Your task to perform on an android device: turn on data saver in the chrome app Image 0: 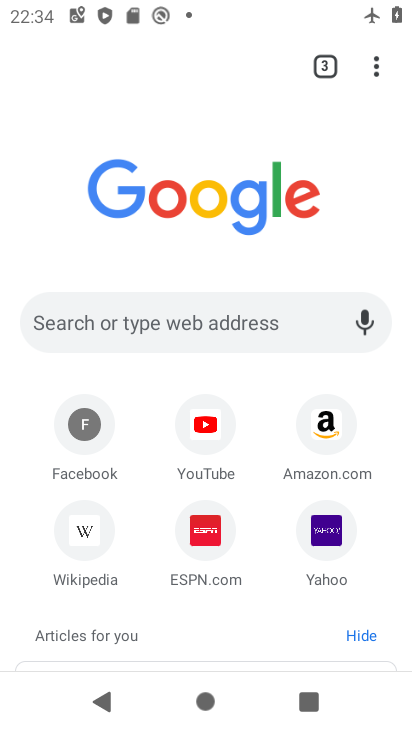
Step 0: press home button
Your task to perform on an android device: turn on data saver in the chrome app Image 1: 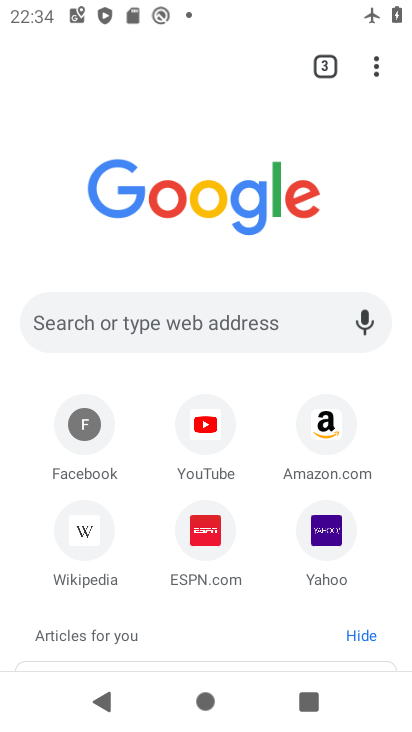
Step 1: press home button
Your task to perform on an android device: turn on data saver in the chrome app Image 2: 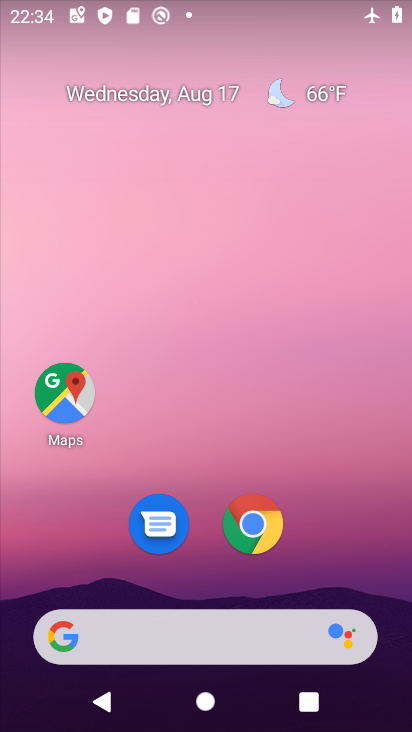
Step 2: click (251, 524)
Your task to perform on an android device: turn on data saver in the chrome app Image 3: 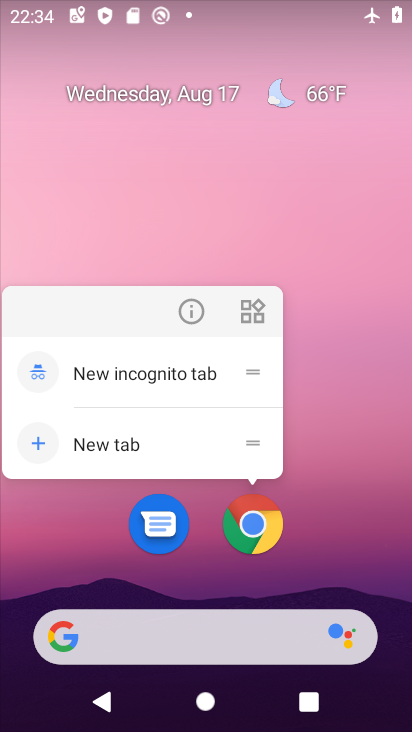
Step 3: click (256, 519)
Your task to perform on an android device: turn on data saver in the chrome app Image 4: 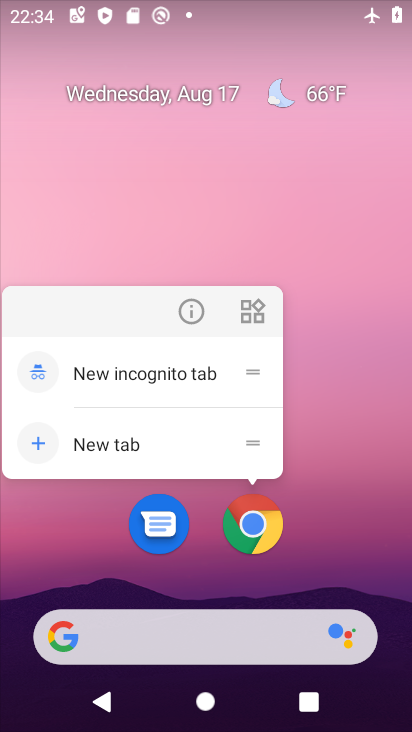
Step 4: click (257, 519)
Your task to perform on an android device: turn on data saver in the chrome app Image 5: 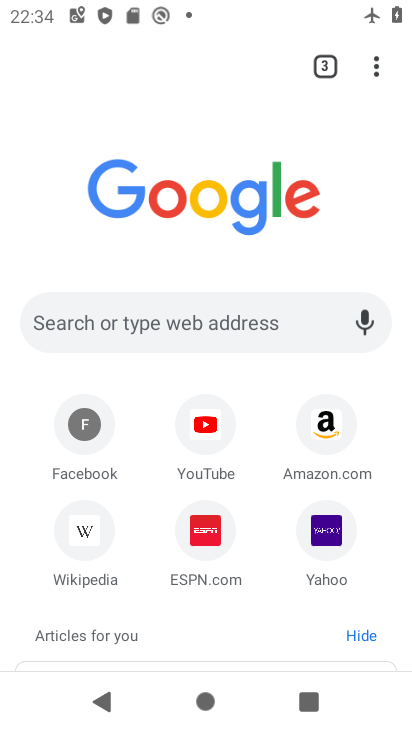
Step 5: click (374, 78)
Your task to perform on an android device: turn on data saver in the chrome app Image 6: 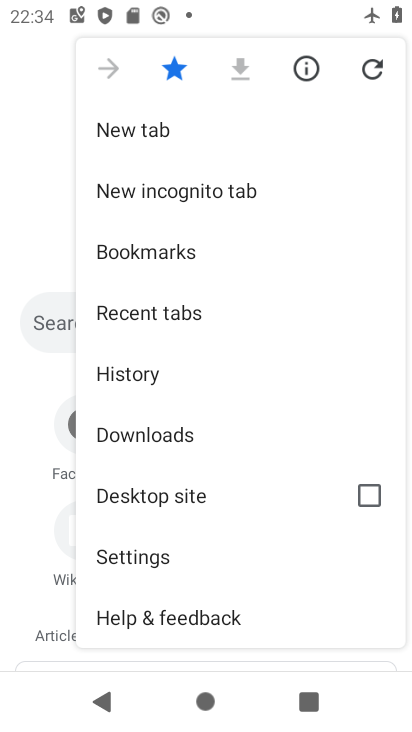
Step 6: click (188, 546)
Your task to perform on an android device: turn on data saver in the chrome app Image 7: 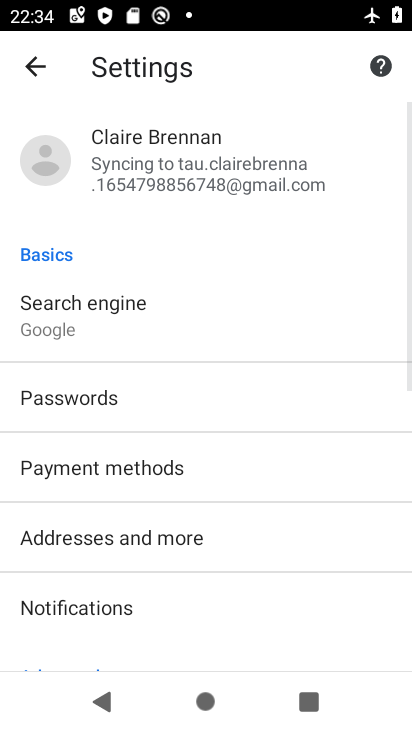
Step 7: drag from (214, 595) to (318, 0)
Your task to perform on an android device: turn on data saver in the chrome app Image 8: 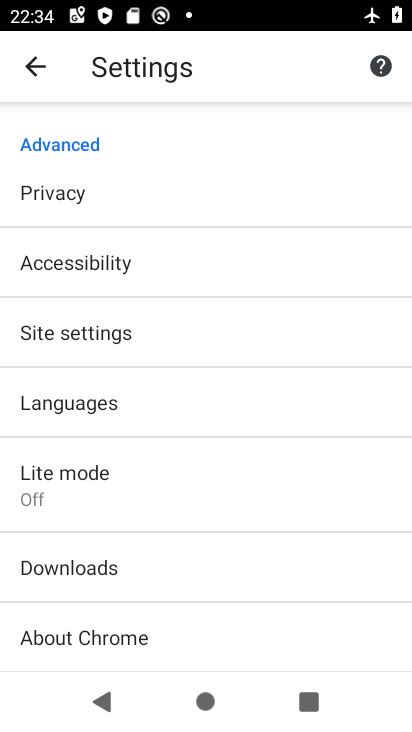
Step 8: click (154, 492)
Your task to perform on an android device: turn on data saver in the chrome app Image 9: 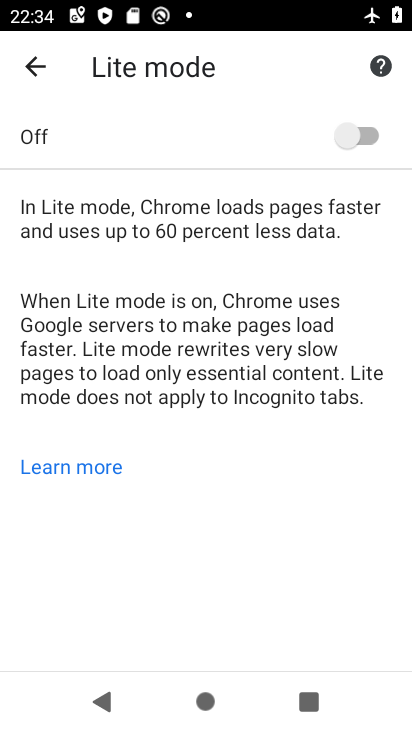
Step 9: click (368, 139)
Your task to perform on an android device: turn on data saver in the chrome app Image 10: 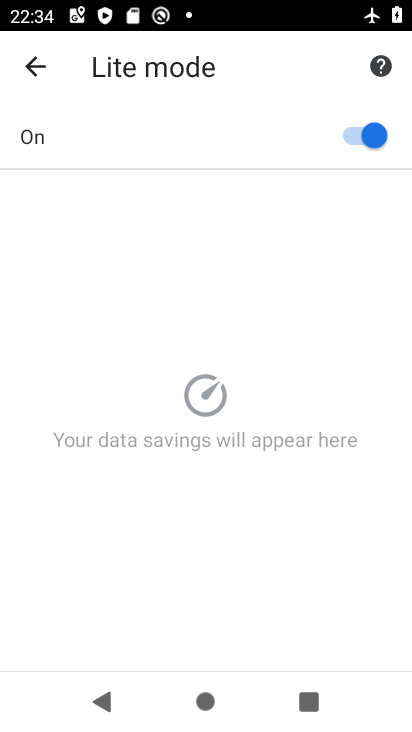
Step 10: task complete